Your task to perform on an android device: open a bookmark in the chrome app Image 0: 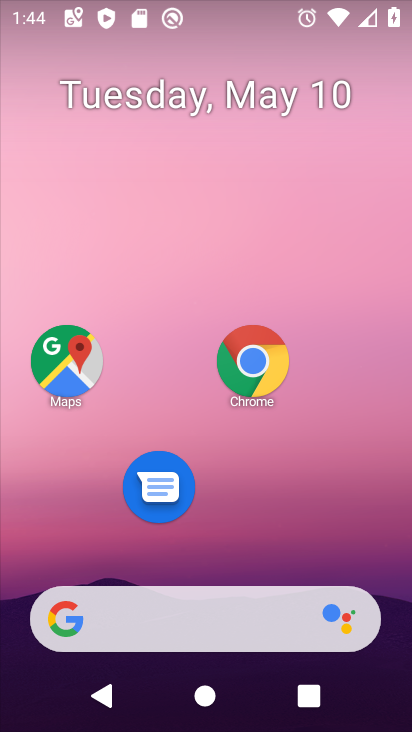
Step 0: drag from (388, 496) to (358, 360)
Your task to perform on an android device: open a bookmark in the chrome app Image 1: 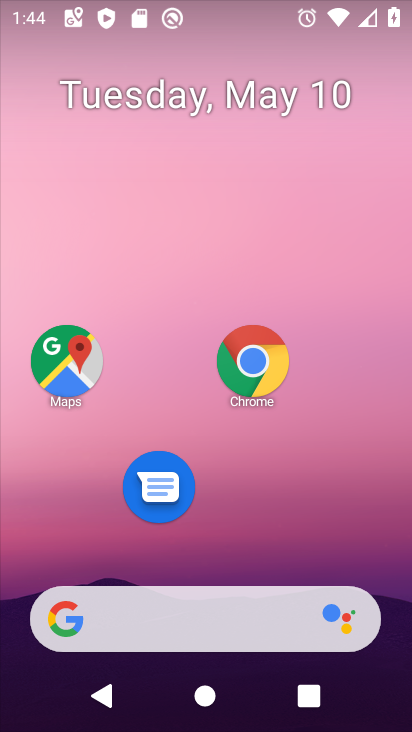
Step 1: click (272, 360)
Your task to perform on an android device: open a bookmark in the chrome app Image 2: 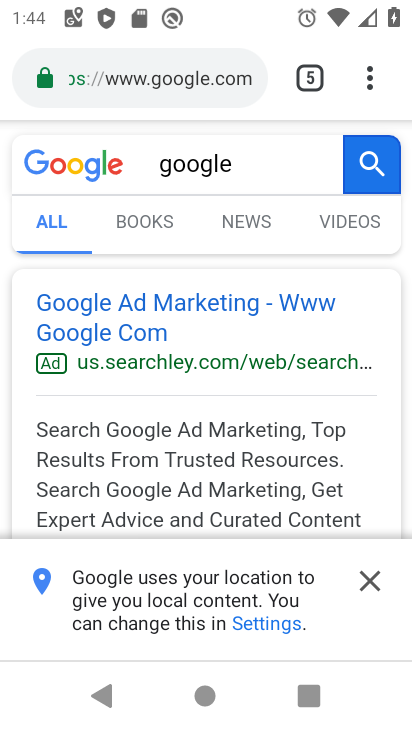
Step 2: click (374, 77)
Your task to perform on an android device: open a bookmark in the chrome app Image 3: 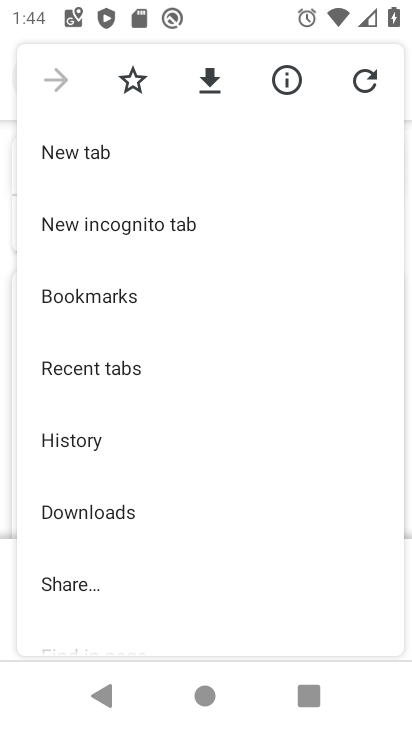
Step 3: click (203, 305)
Your task to perform on an android device: open a bookmark in the chrome app Image 4: 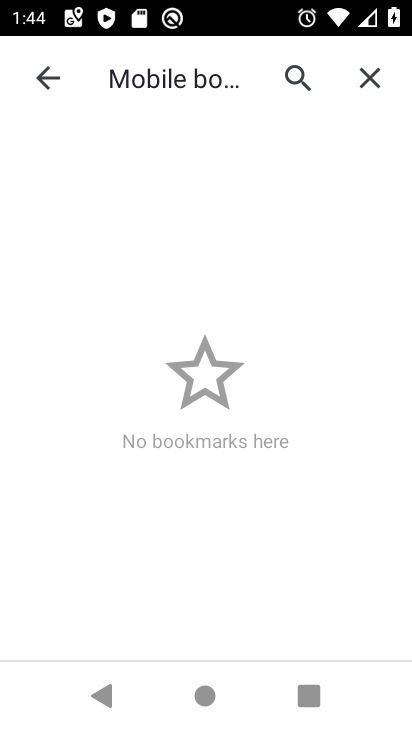
Step 4: task complete